Your task to perform on an android device: Open Google Chrome and open the bookmarks view Image 0: 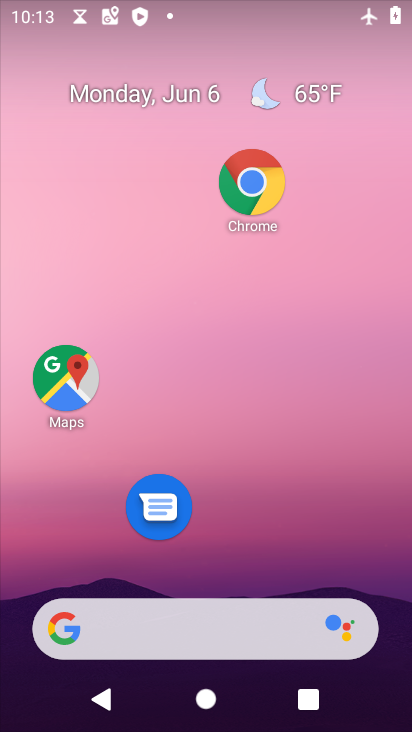
Step 0: click (245, 184)
Your task to perform on an android device: Open Google Chrome and open the bookmarks view Image 1: 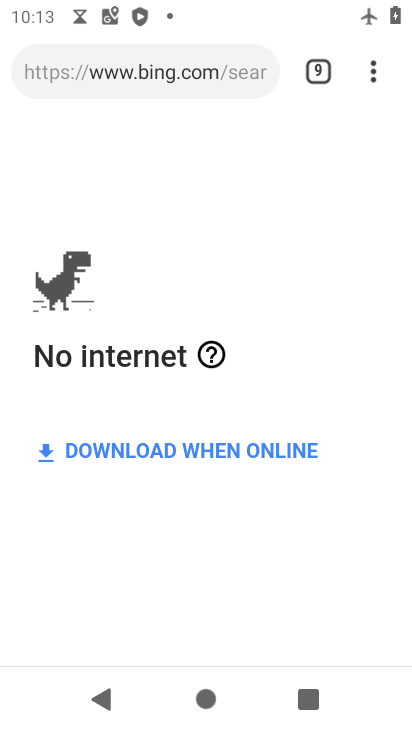
Step 1: click (369, 65)
Your task to perform on an android device: Open Google Chrome and open the bookmarks view Image 2: 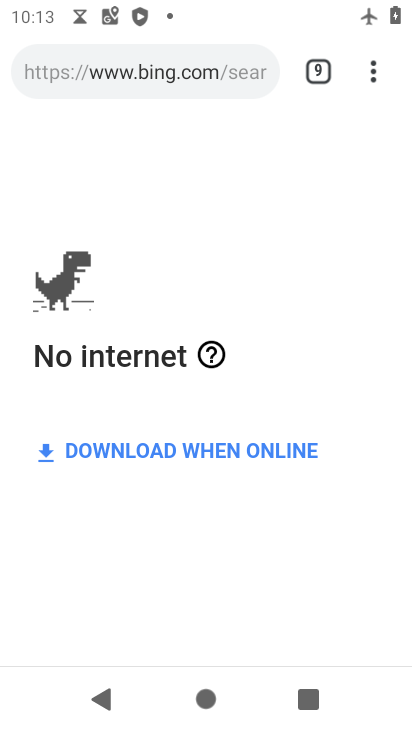
Step 2: click (361, 71)
Your task to perform on an android device: Open Google Chrome and open the bookmarks view Image 3: 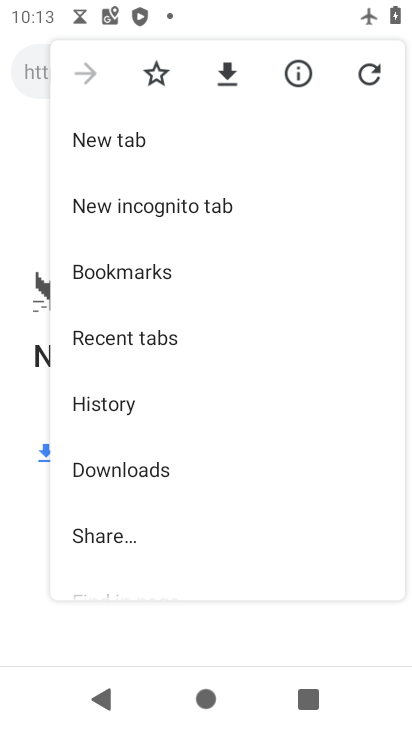
Step 3: click (100, 278)
Your task to perform on an android device: Open Google Chrome and open the bookmarks view Image 4: 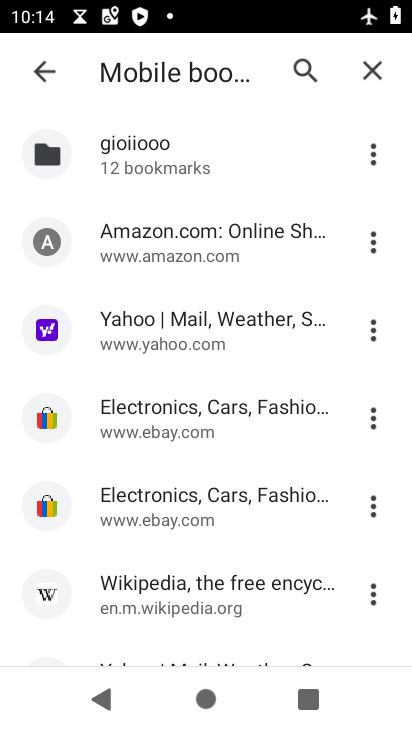
Step 4: task complete